Your task to perform on an android device: Open Google Chrome and open the bookmarks view Image 0: 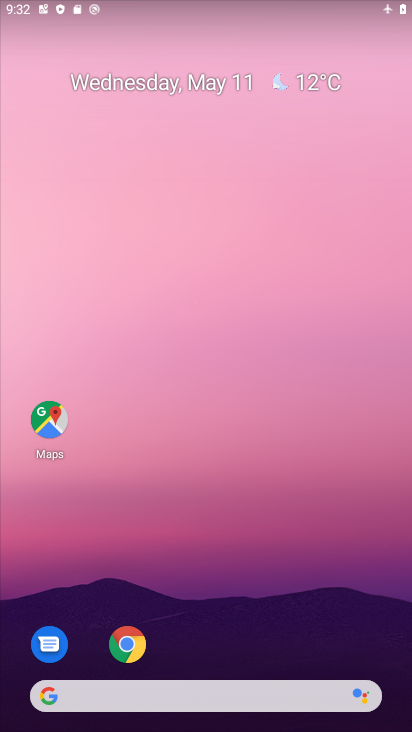
Step 0: click (133, 642)
Your task to perform on an android device: Open Google Chrome and open the bookmarks view Image 1: 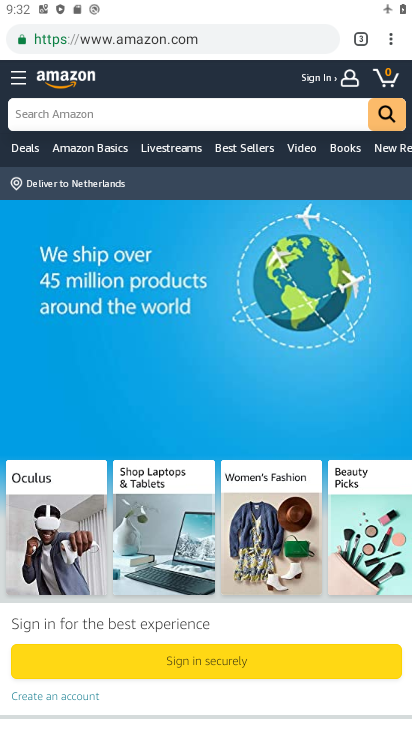
Step 1: click (389, 40)
Your task to perform on an android device: Open Google Chrome and open the bookmarks view Image 2: 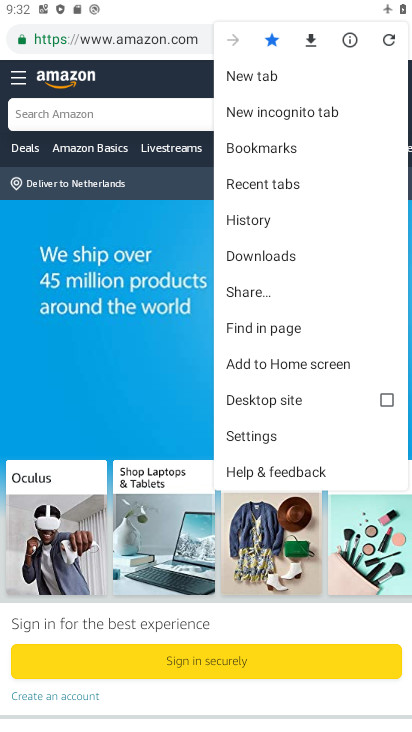
Step 2: click (261, 147)
Your task to perform on an android device: Open Google Chrome and open the bookmarks view Image 3: 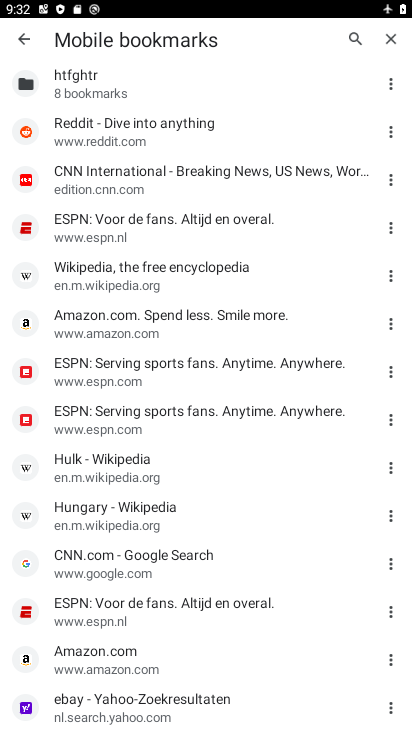
Step 3: task complete